Your task to perform on an android device: clear all cookies in the chrome app Image 0: 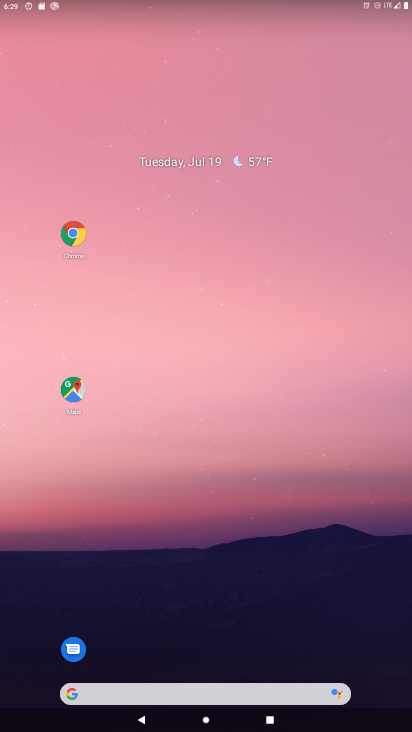
Step 0: click (71, 239)
Your task to perform on an android device: clear all cookies in the chrome app Image 1: 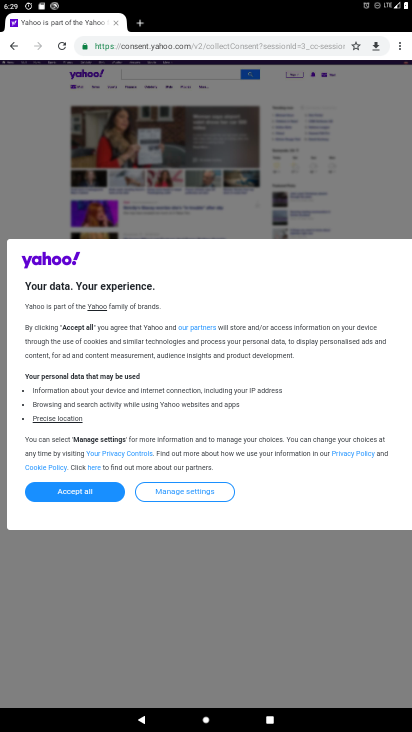
Step 1: click (402, 46)
Your task to perform on an android device: clear all cookies in the chrome app Image 2: 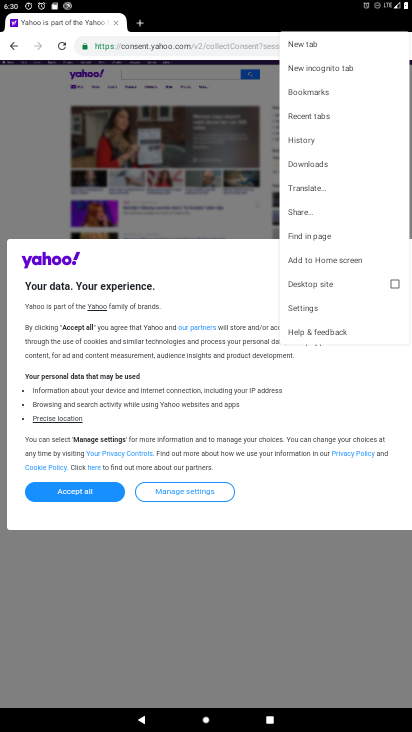
Step 2: click (305, 137)
Your task to perform on an android device: clear all cookies in the chrome app Image 3: 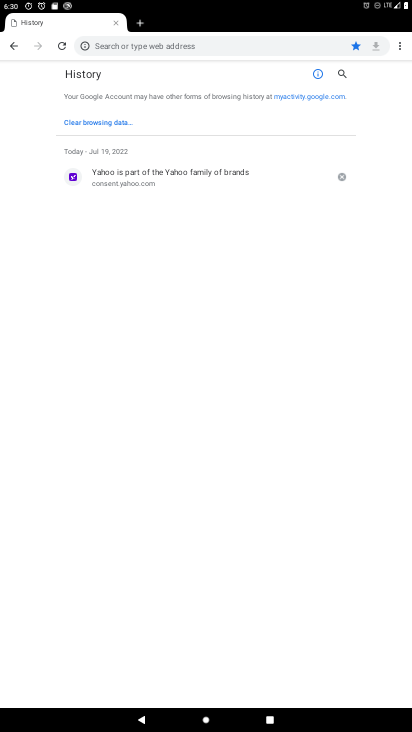
Step 3: click (94, 128)
Your task to perform on an android device: clear all cookies in the chrome app Image 4: 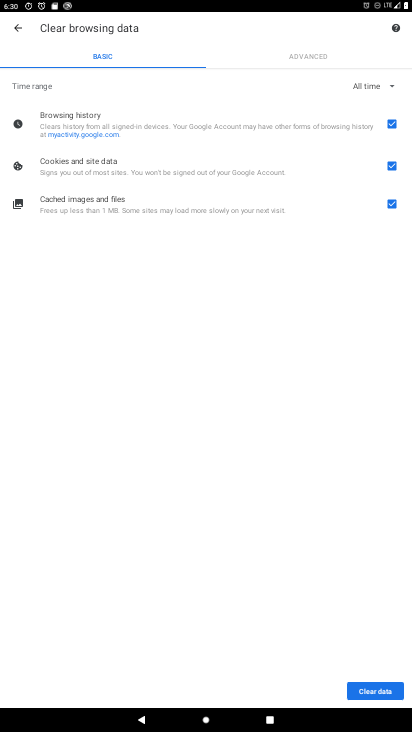
Step 4: click (394, 203)
Your task to perform on an android device: clear all cookies in the chrome app Image 5: 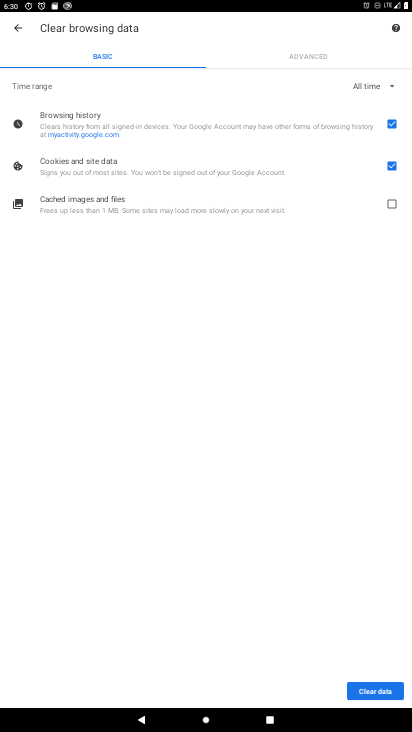
Step 5: click (392, 117)
Your task to perform on an android device: clear all cookies in the chrome app Image 6: 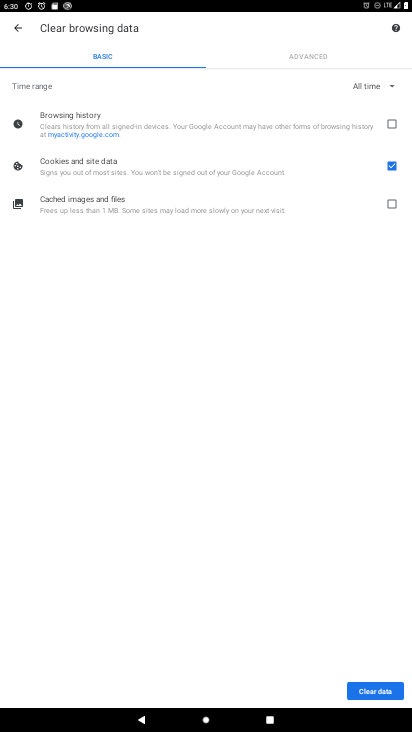
Step 6: click (375, 683)
Your task to perform on an android device: clear all cookies in the chrome app Image 7: 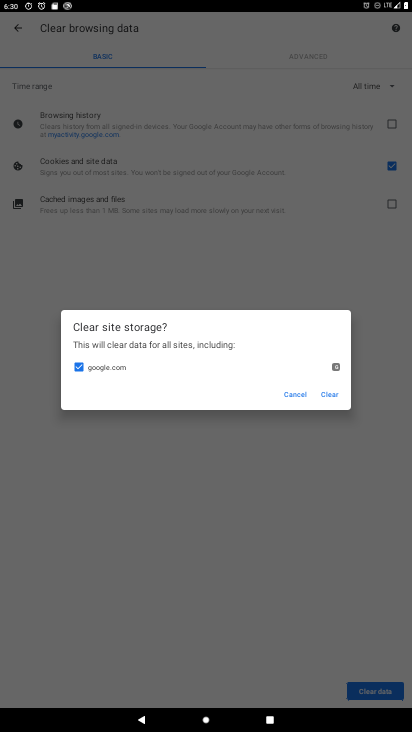
Step 7: click (335, 394)
Your task to perform on an android device: clear all cookies in the chrome app Image 8: 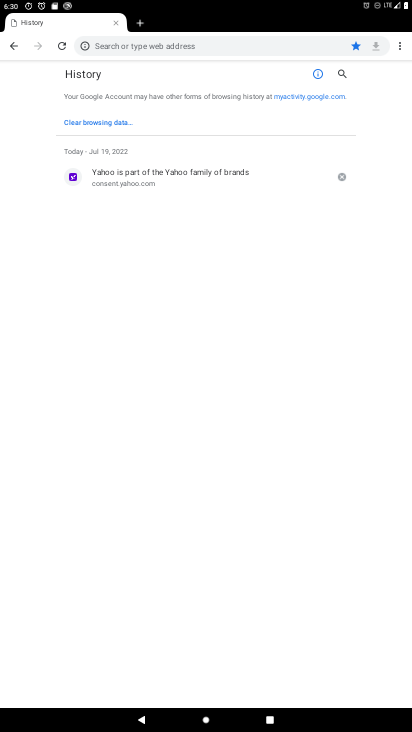
Step 8: task complete